Your task to perform on an android device: Open accessibility settings Image 0: 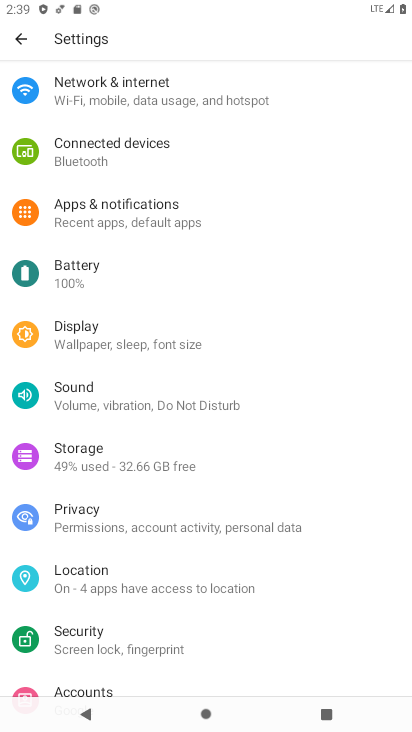
Step 0: drag from (178, 604) to (62, 205)
Your task to perform on an android device: Open accessibility settings Image 1: 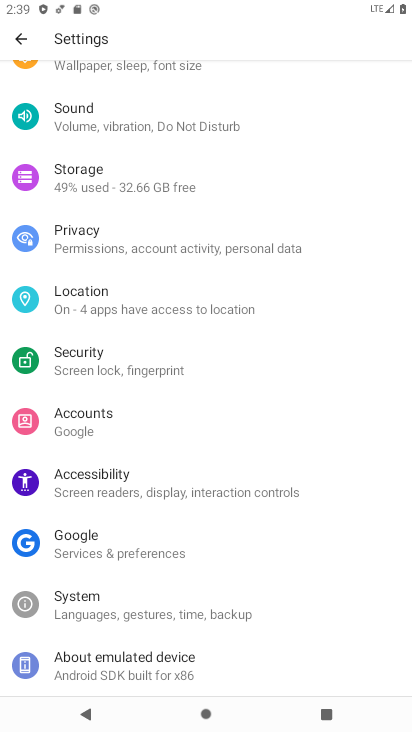
Step 1: click (94, 490)
Your task to perform on an android device: Open accessibility settings Image 2: 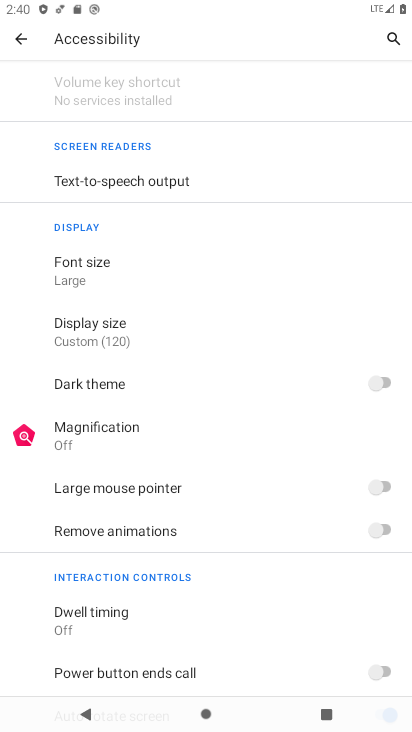
Step 2: task complete